Your task to perform on an android device: Go to Maps Image 0: 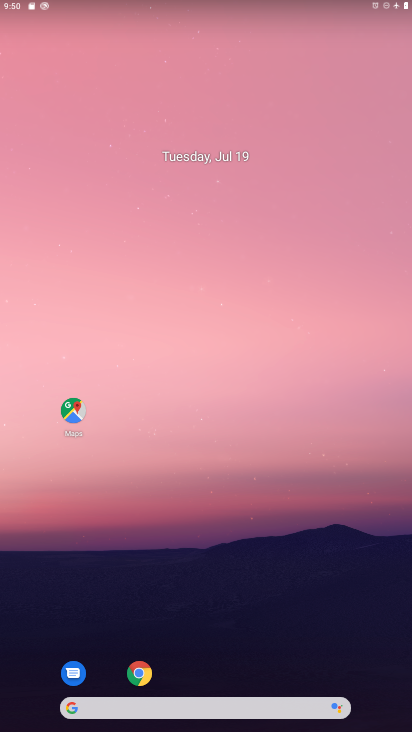
Step 0: click (71, 408)
Your task to perform on an android device: Go to Maps Image 1: 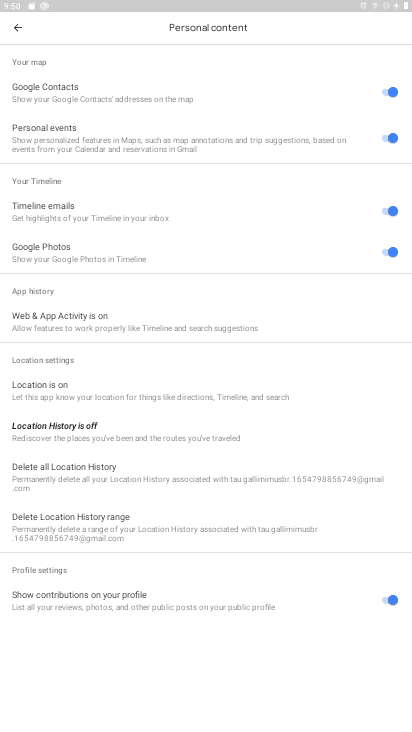
Step 1: task complete